Your task to perform on an android device: delete the emails in spam in the gmail app Image 0: 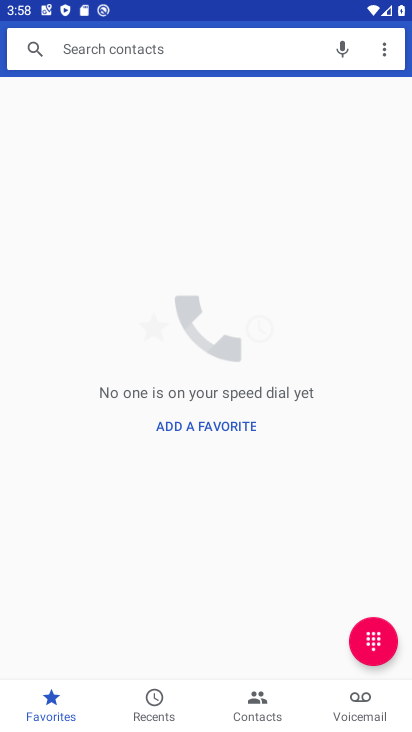
Step 0: press home button
Your task to perform on an android device: delete the emails in spam in the gmail app Image 1: 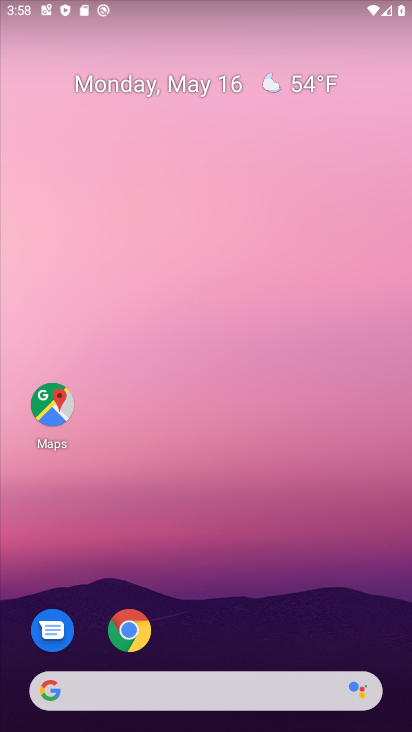
Step 1: drag from (260, 649) to (284, 34)
Your task to perform on an android device: delete the emails in spam in the gmail app Image 2: 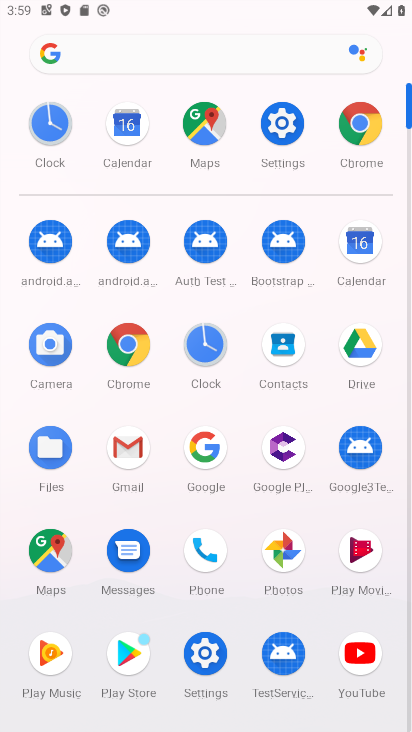
Step 2: click (129, 449)
Your task to perform on an android device: delete the emails in spam in the gmail app Image 3: 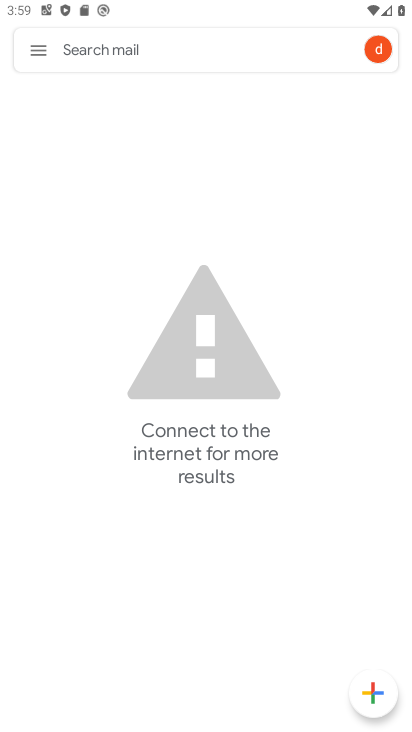
Step 3: click (40, 60)
Your task to perform on an android device: delete the emails in spam in the gmail app Image 4: 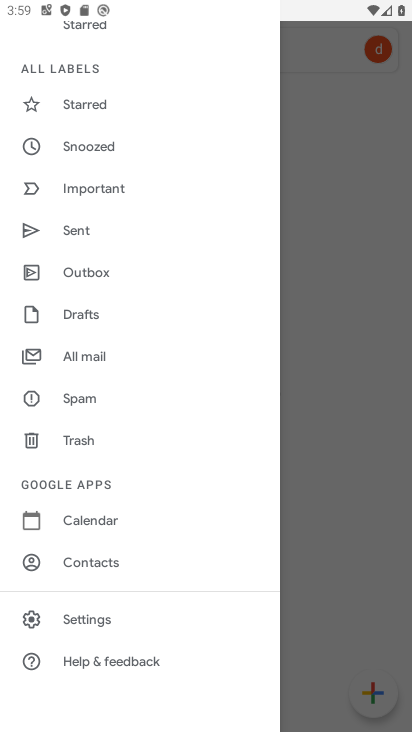
Step 4: click (107, 397)
Your task to perform on an android device: delete the emails in spam in the gmail app Image 5: 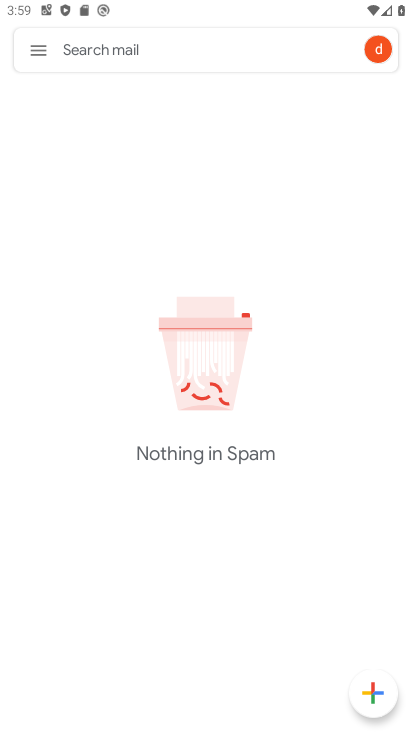
Step 5: task complete